Your task to perform on an android device: Go to location settings Image 0: 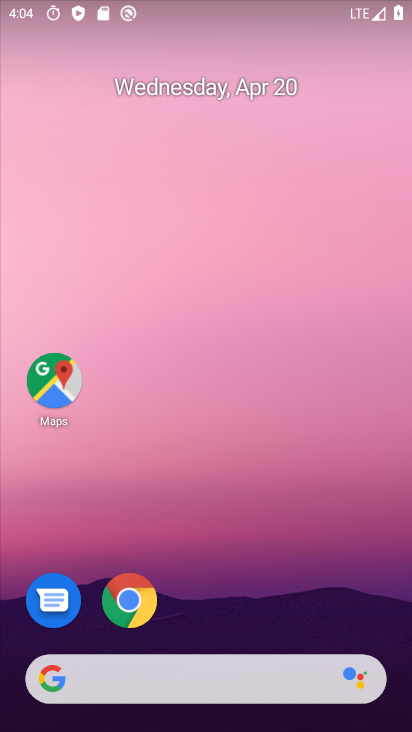
Step 0: drag from (302, 550) to (316, 121)
Your task to perform on an android device: Go to location settings Image 1: 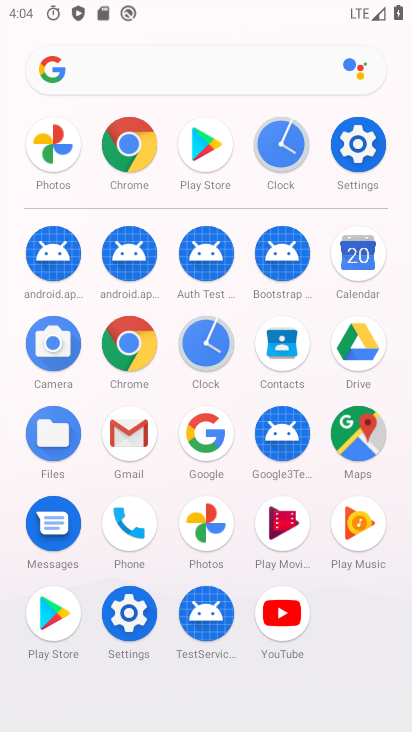
Step 1: click (120, 611)
Your task to perform on an android device: Go to location settings Image 2: 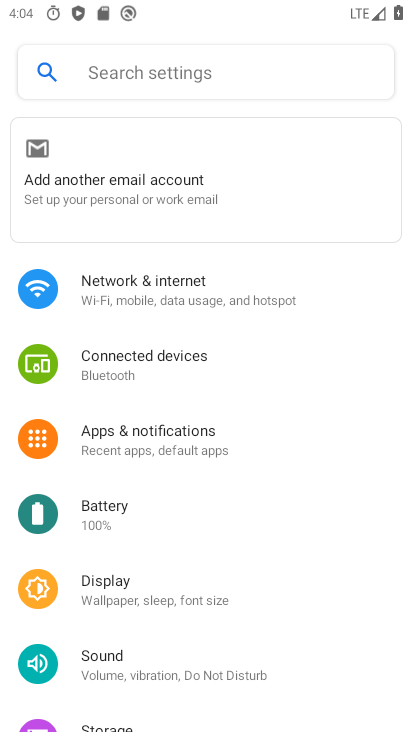
Step 2: drag from (192, 500) to (237, 246)
Your task to perform on an android device: Go to location settings Image 3: 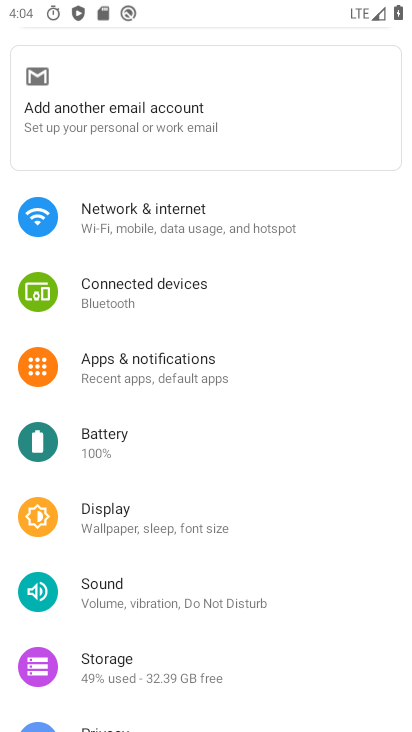
Step 3: drag from (162, 593) to (187, 289)
Your task to perform on an android device: Go to location settings Image 4: 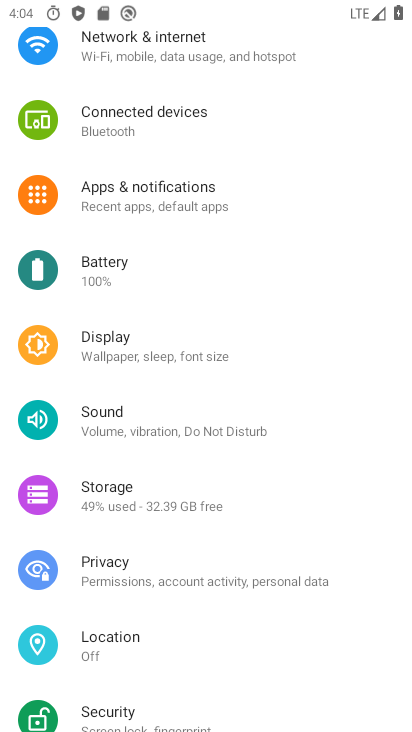
Step 4: click (117, 647)
Your task to perform on an android device: Go to location settings Image 5: 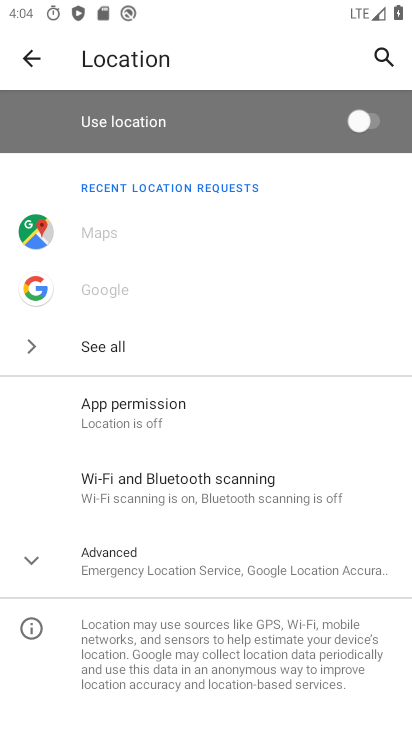
Step 5: task complete